Your task to perform on an android device: turn on translation in the chrome app Image 0: 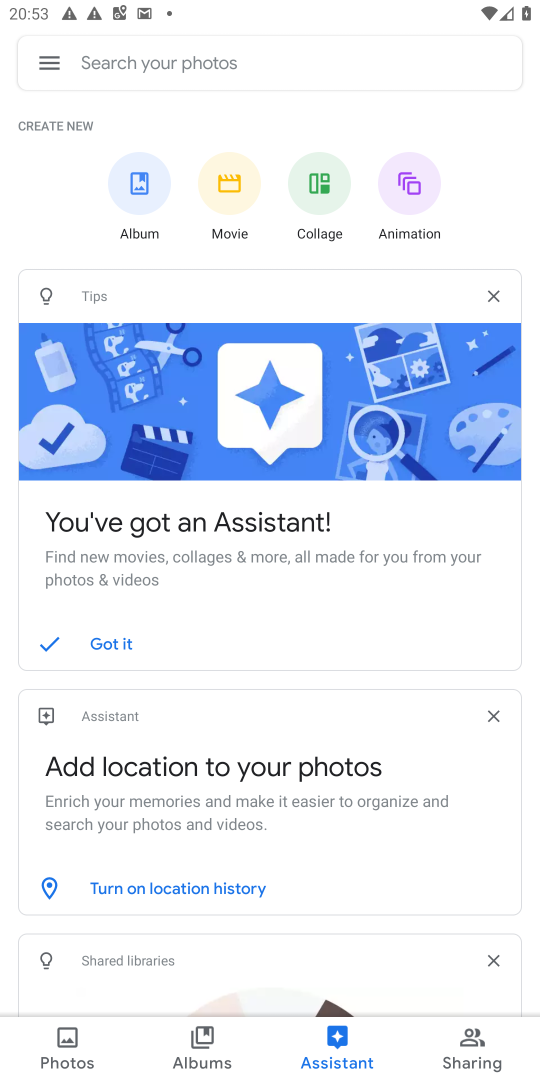
Step 0: click (190, 70)
Your task to perform on an android device: turn on translation in the chrome app Image 1: 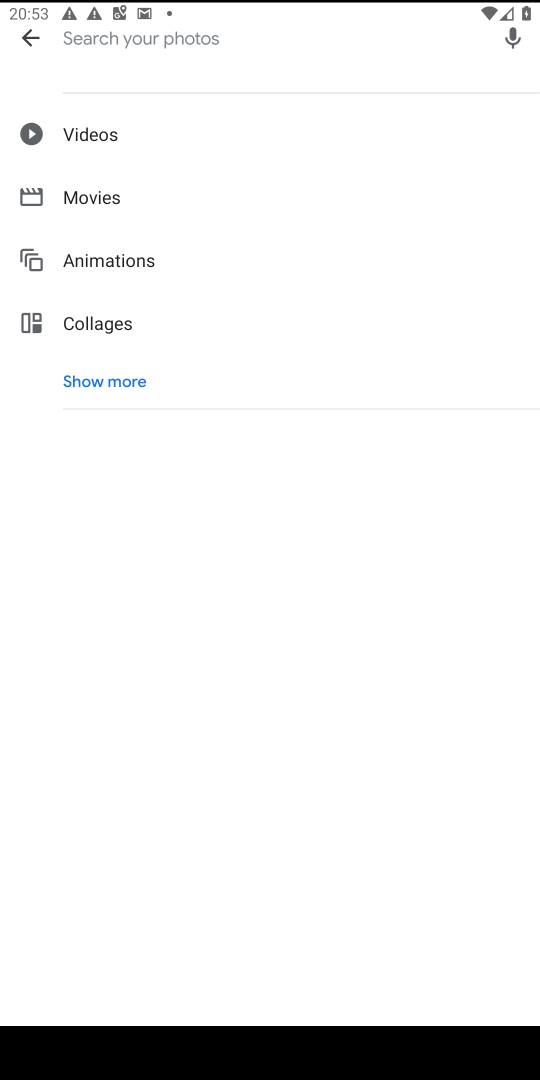
Step 1: click (34, 43)
Your task to perform on an android device: turn on translation in the chrome app Image 2: 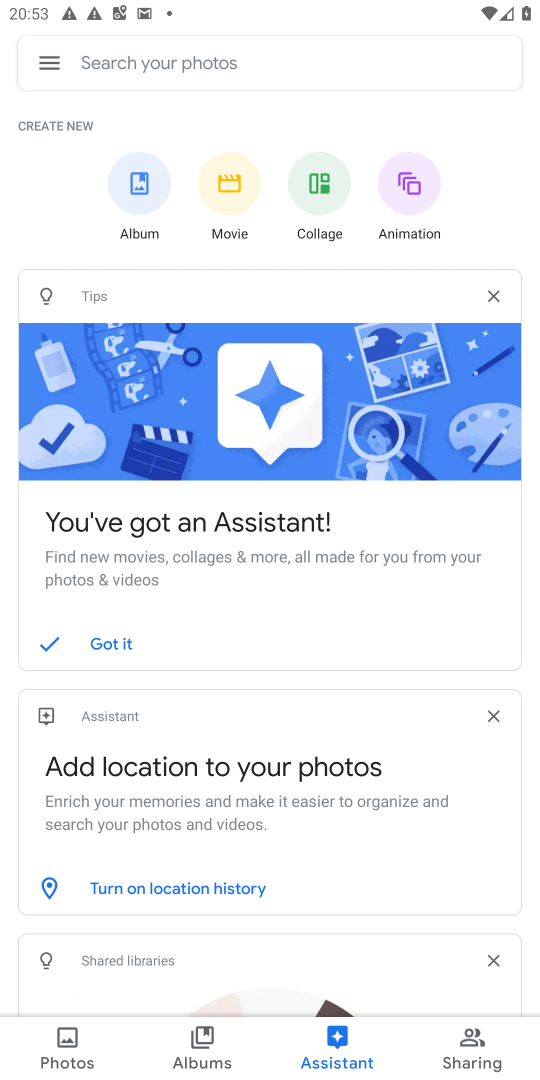
Step 2: click (67, 66)
Your task to perform on an android device: turn on translation in the chrome app Image 3: 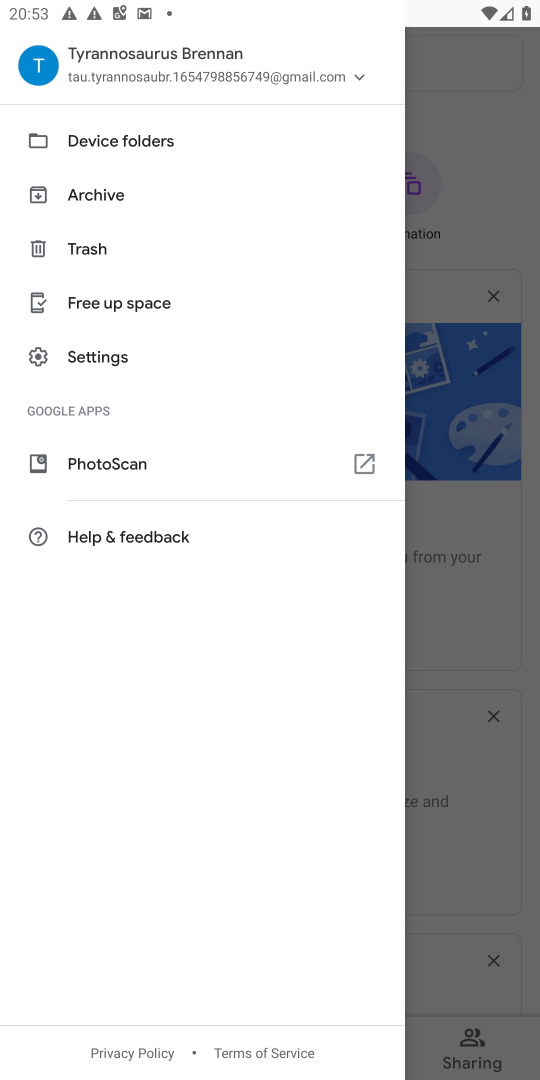
Step 3: click (457, 602)
Your task to perform on an android device: turn on translation in the chrome app Image 4: 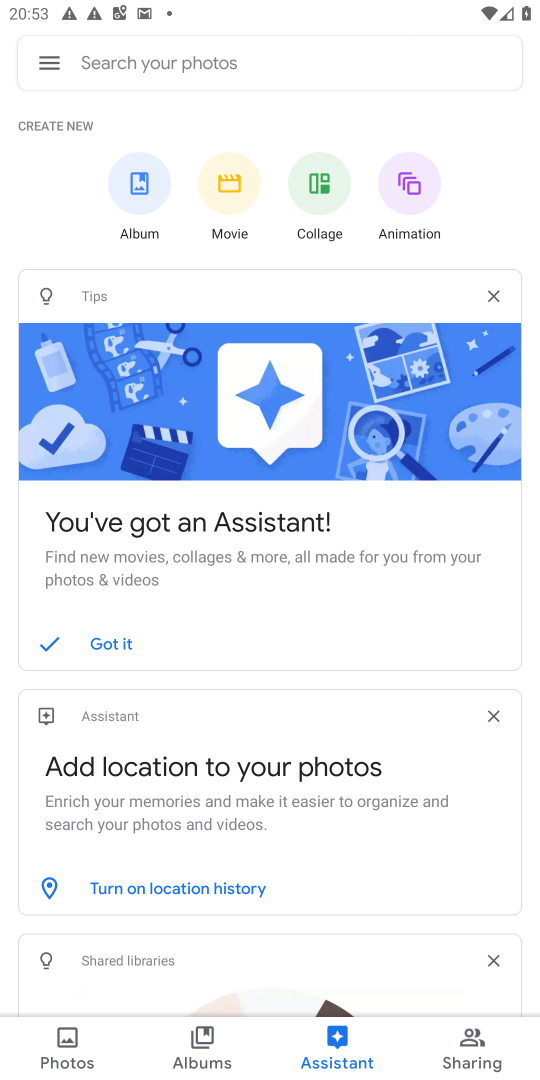
Step 4: click (34, 67)
Your task to perform on an android device: turn on translation in the chrome app Image 5: 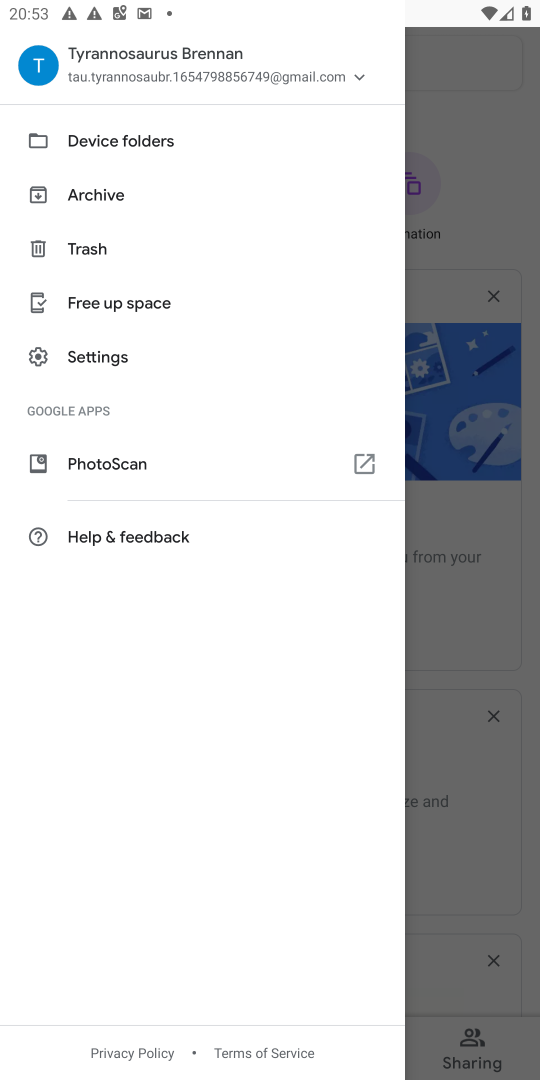
Step 5: click (129, 360)
Your task to perform on an android device: turn on translation in the chrome app Image 6: 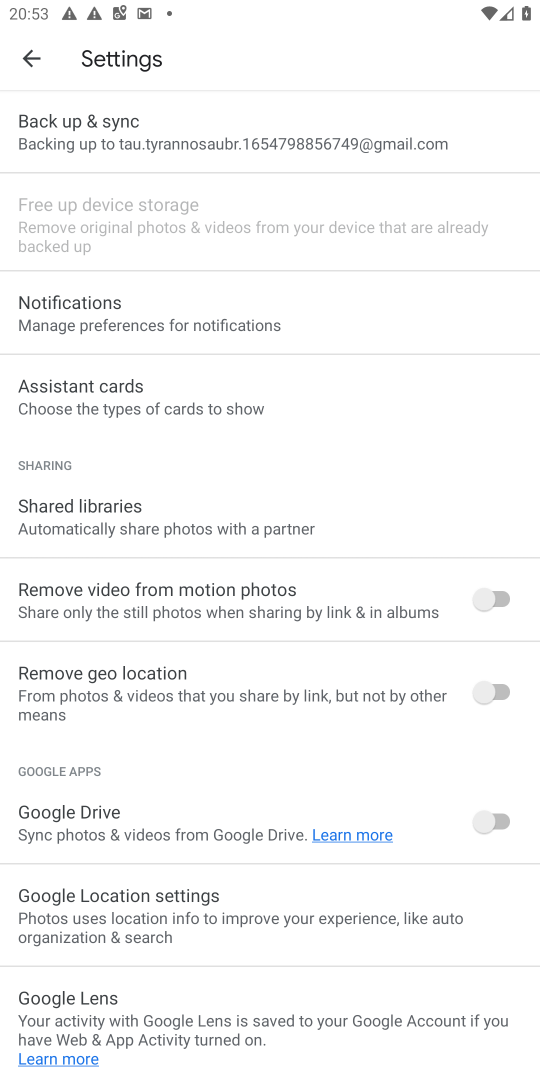
Step 6: press home button
Your task to perform on an android device: turn on translation in the chrome app Image 7: 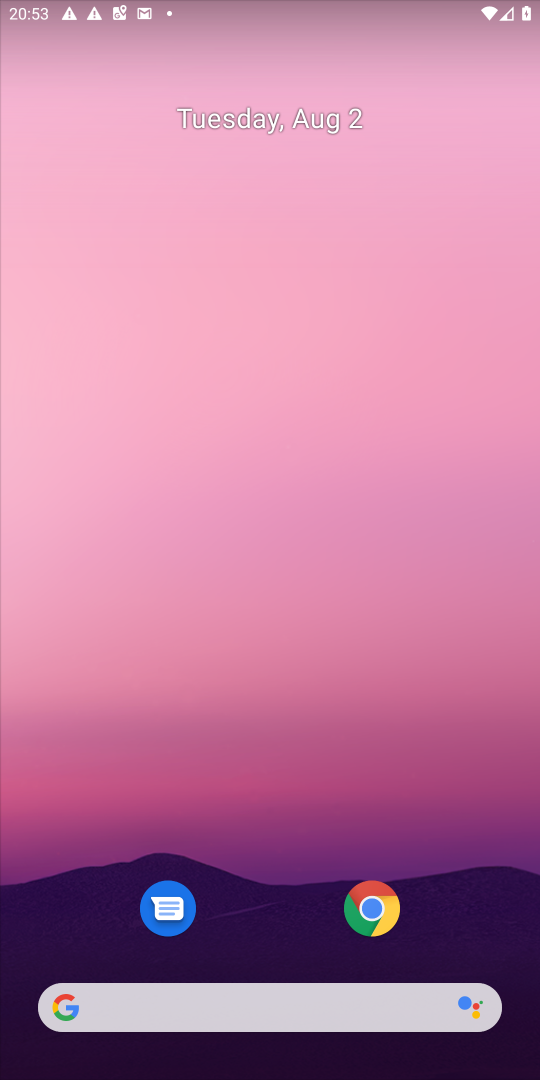
Step 7: click (371, 890)
Your task to perform on an android device: turn on translation in the chrome app Image 8: 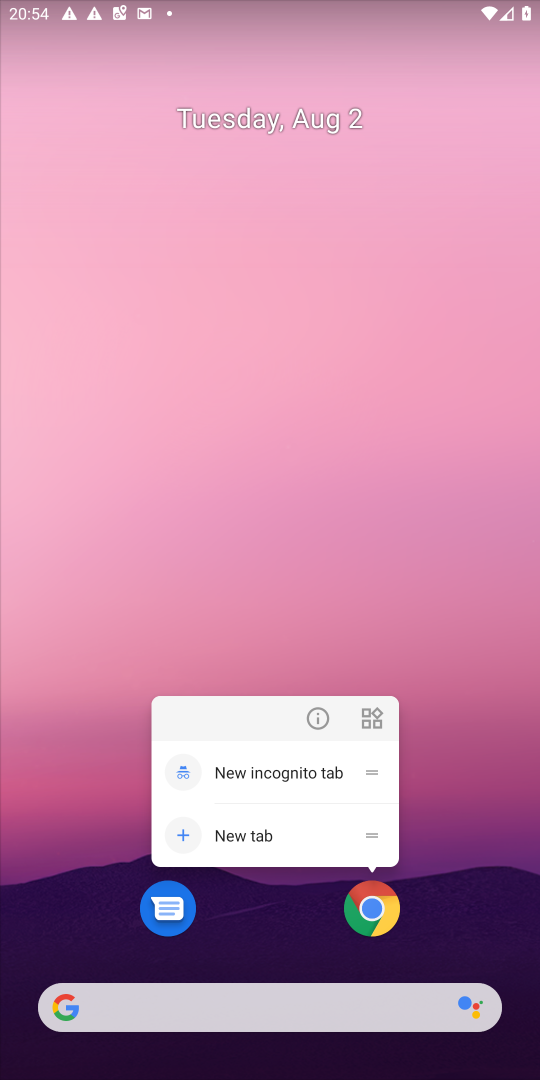
Step 8: click (353, 922)
Your task to perform on an android device: turn on translation in the chrome app Image 9: 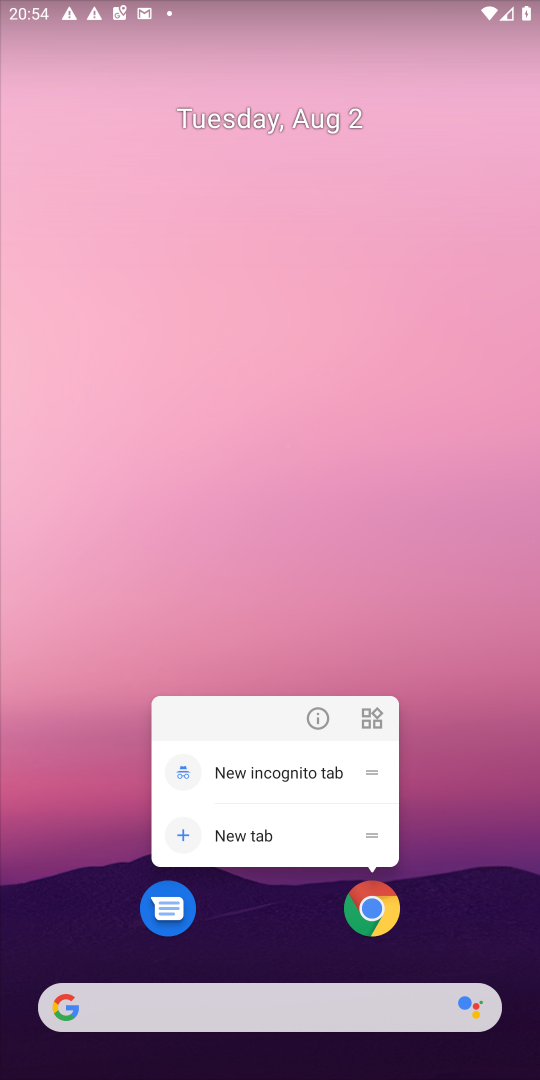
Step 9: click (353, 922)
Your task to perform on an android device: turn on translation in the chrome app Image 10: 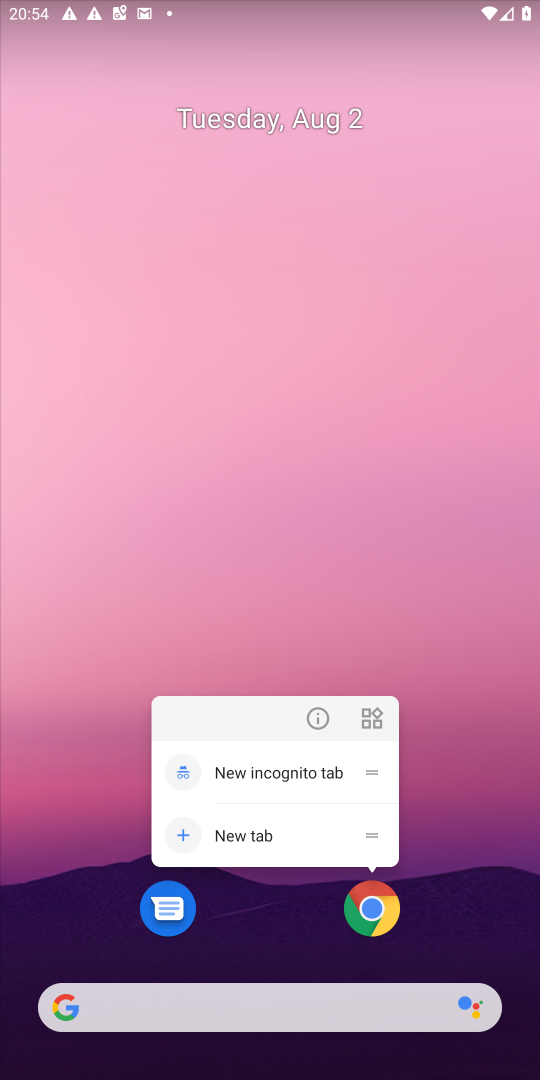
Step 10: click (413, 921)
Your task to perform on an android device: turn on translation in the chrome app Image 11: 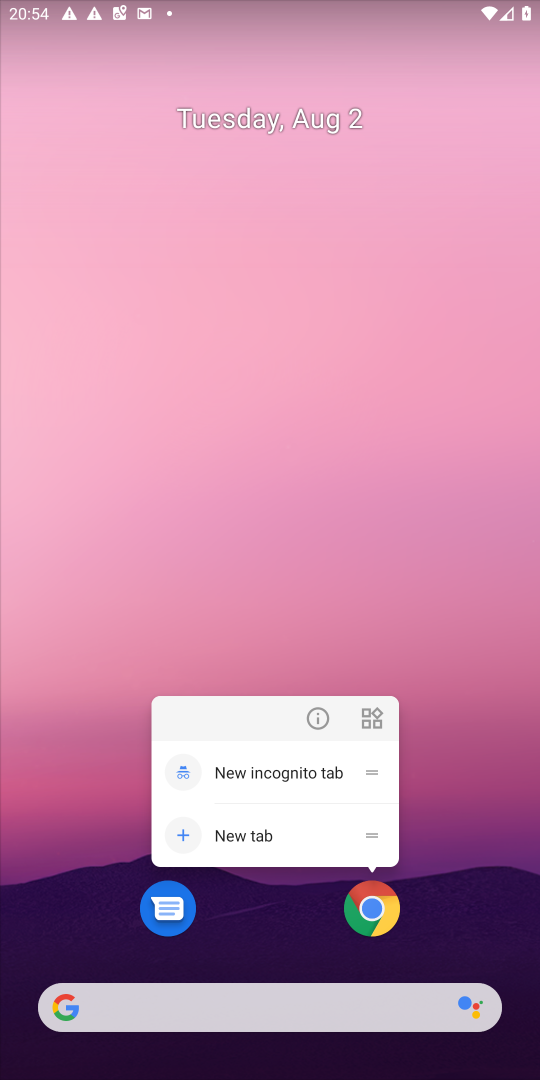
Step 11: click (391, 919)
Your task to perform on an android device: turn on translation in the chrome app Image 12: 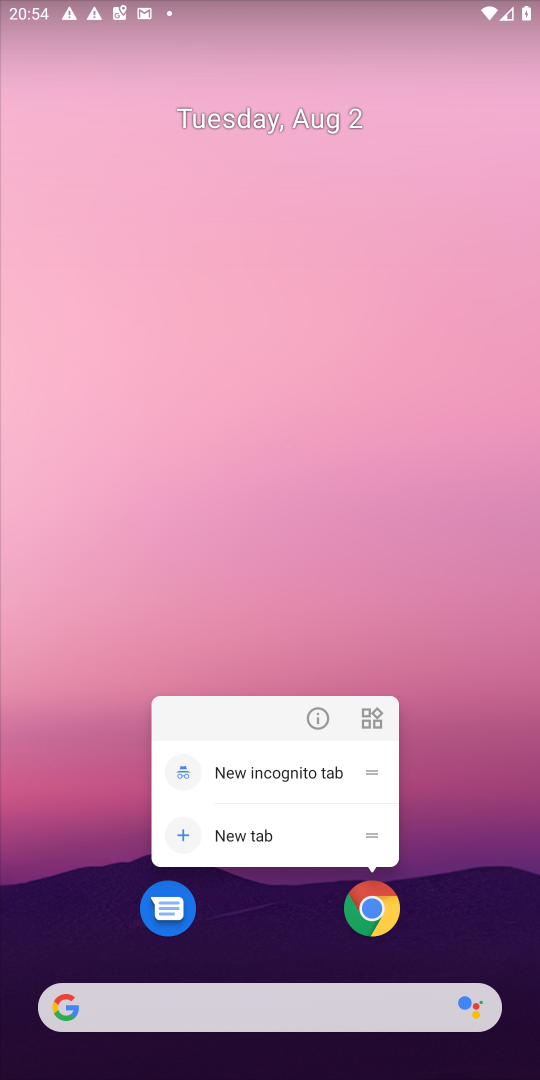
Step 12: click (391, 919)
Your task to perform on an android device: turn on translation in the chrome app Image 13: 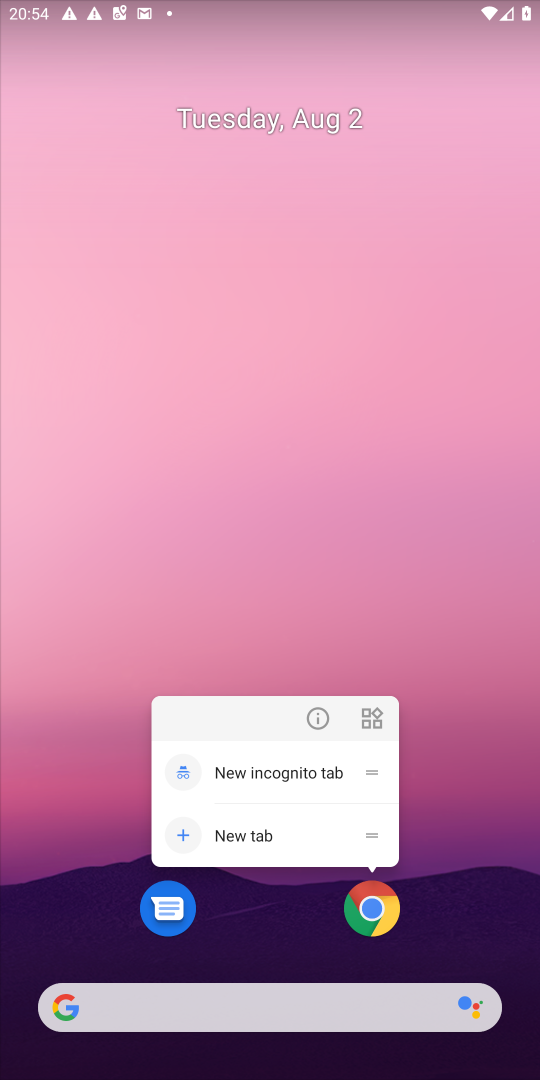
Step 13: click (375, 918)
Your task to perform on an android device: turn on translation in the chrome app Image 14: 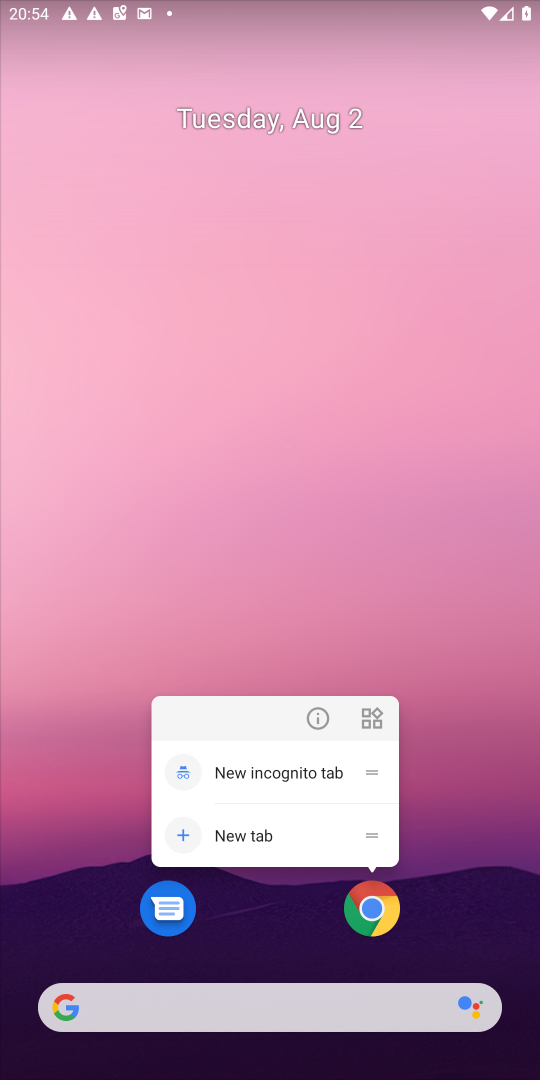
Step 14: click (364, 898)
Your task to perform on an android device: turn on translation in the chrome app Image 15: 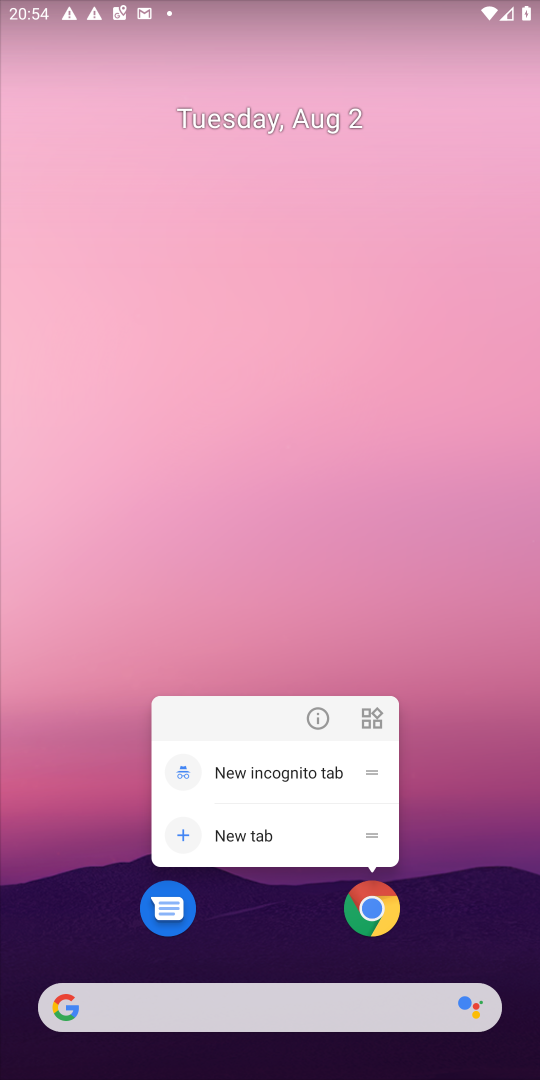
Step 15: click (383, 922)
Your task to perform on an android device: turn on translation in the chrome app Image 16: 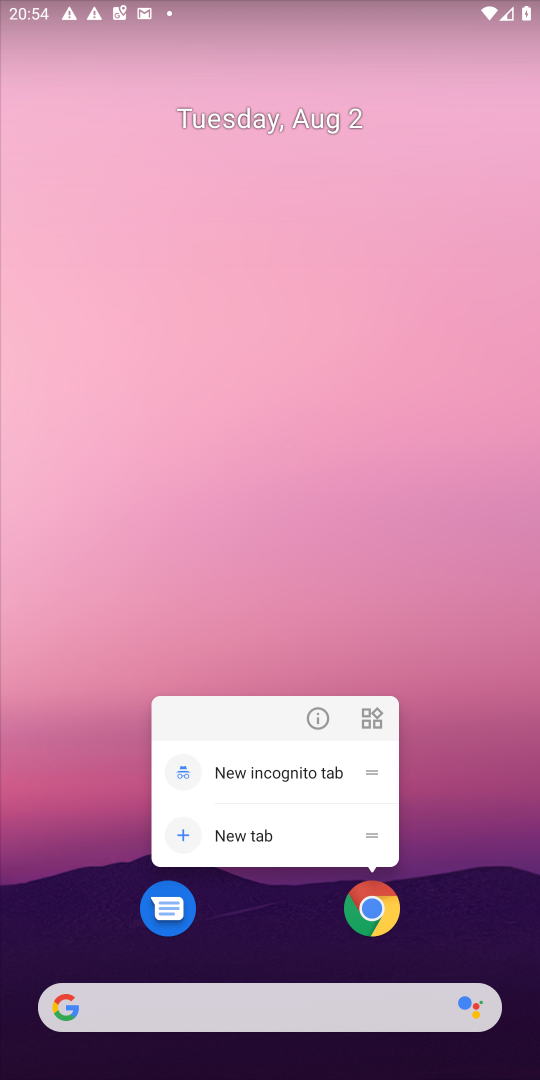
Step 16: click (374, 908)
Your task to perform on an android device: turn on translation in the chrome app Image 17: 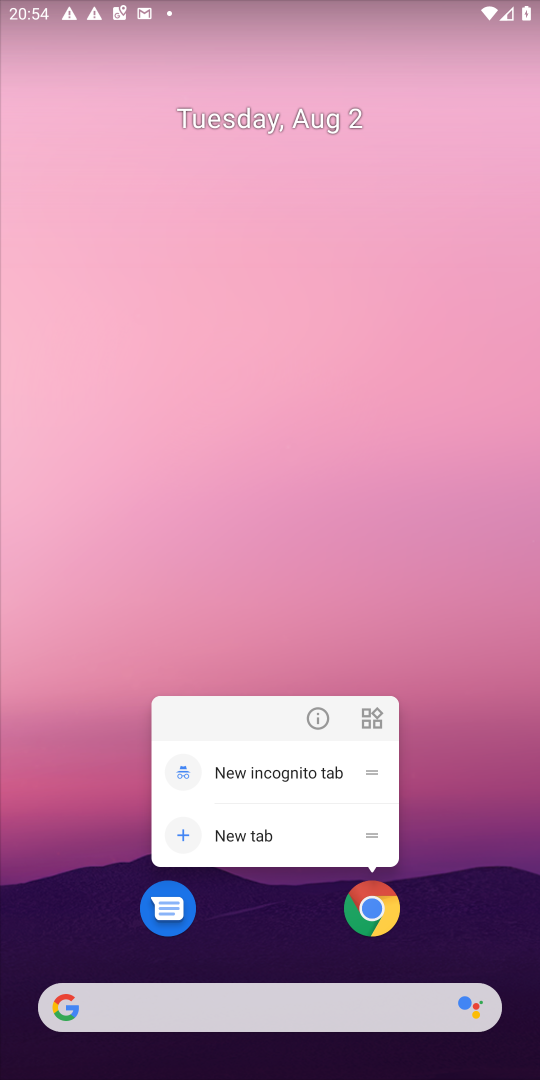
Step 17: click (374, 908)
Your task to perform on an android device: turn on translation in the chrome app Image 18: 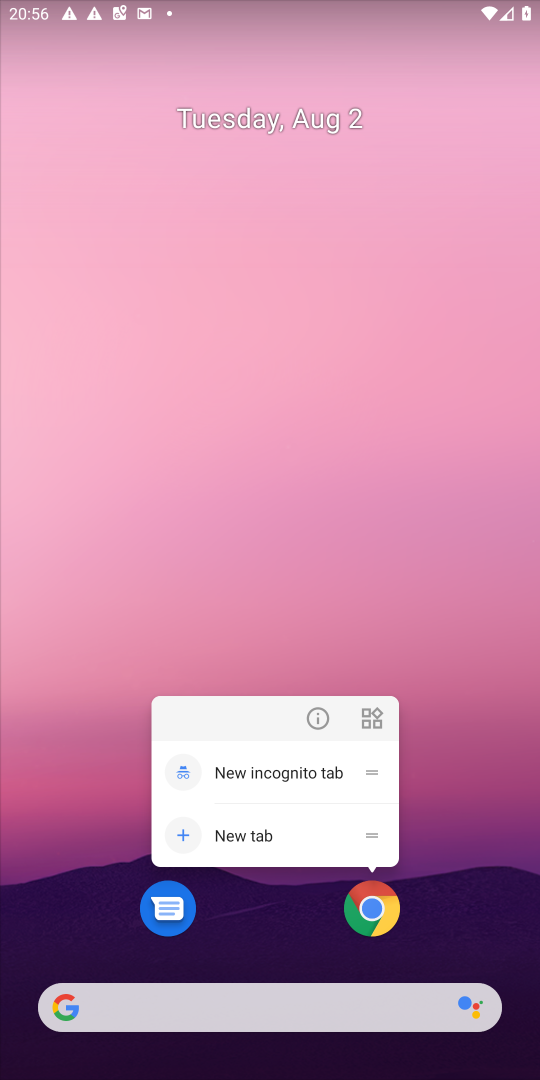
Step 18: click (352, 911)
Your task to perform on an android device: turn on translation in the chrome app Image 19: 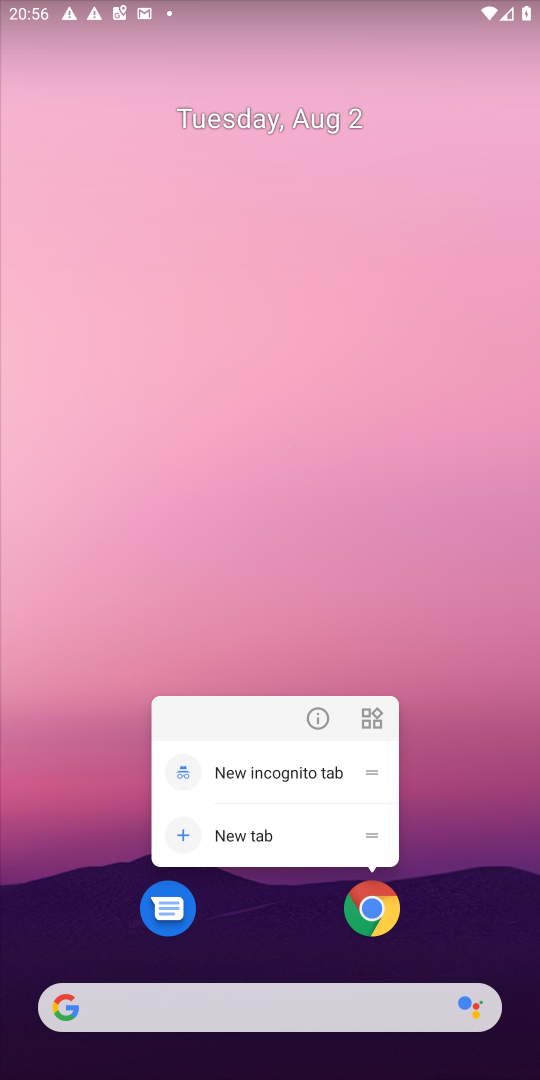
Step 19: click (352, 911)
Your task to perform on an android device: turn on translation in the chrome app Image 20: 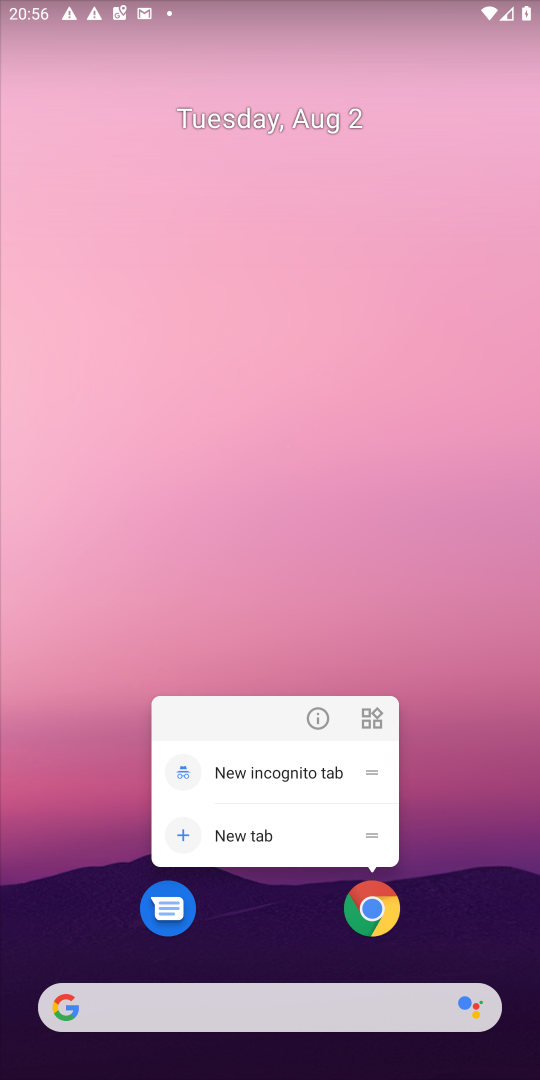
Step 20: click (352, 911)
Your task to perform on an android device: turn on translation in the chrome app Image 21: 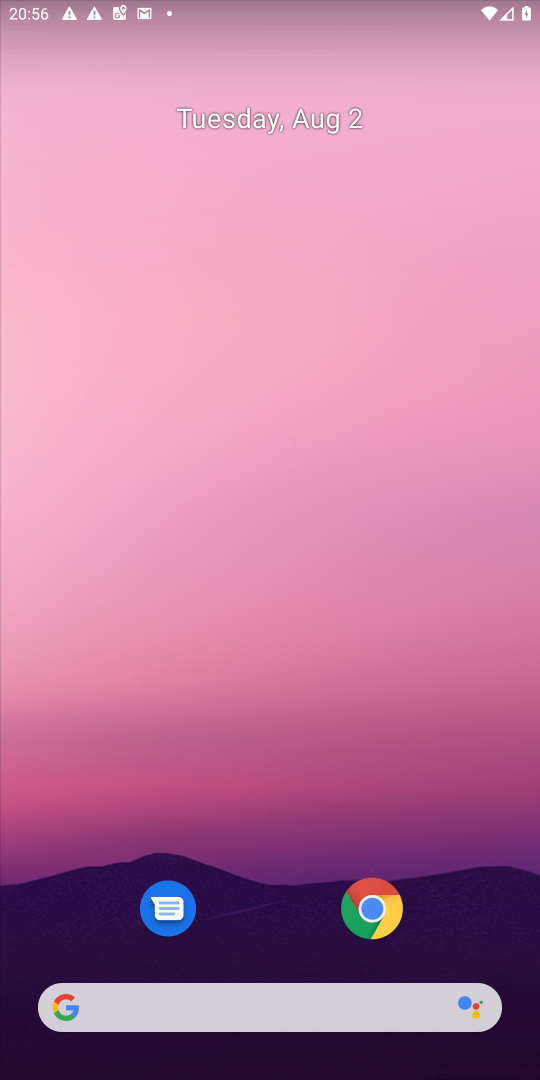
Step 21: click (352, 911)
Your task to perform on an android device: turn on translation in the chrome app Image 22: 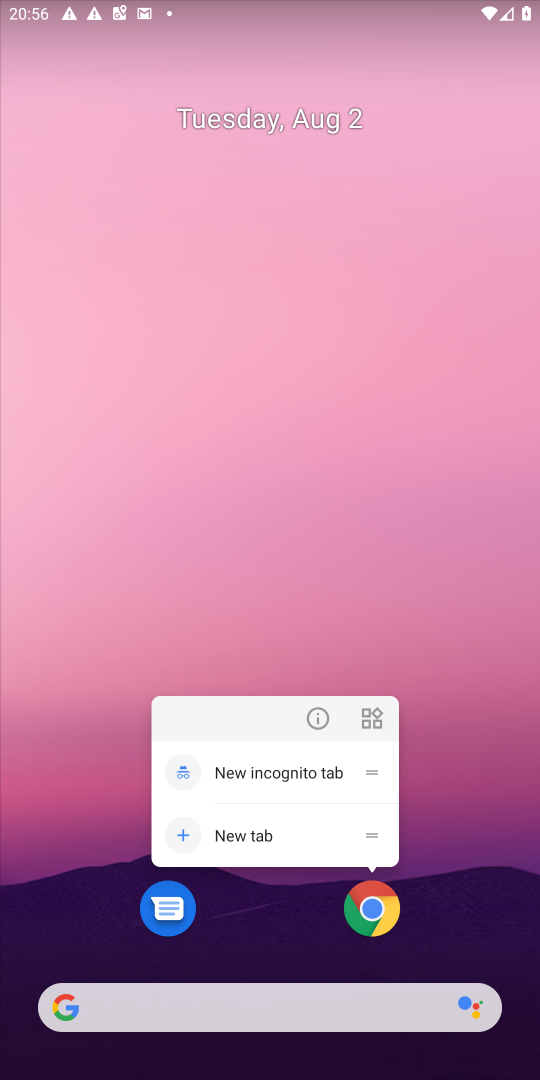
Step 22: click (352, 911)
Your task to perform on an android device: turn on translation in the chrome app Image 23: 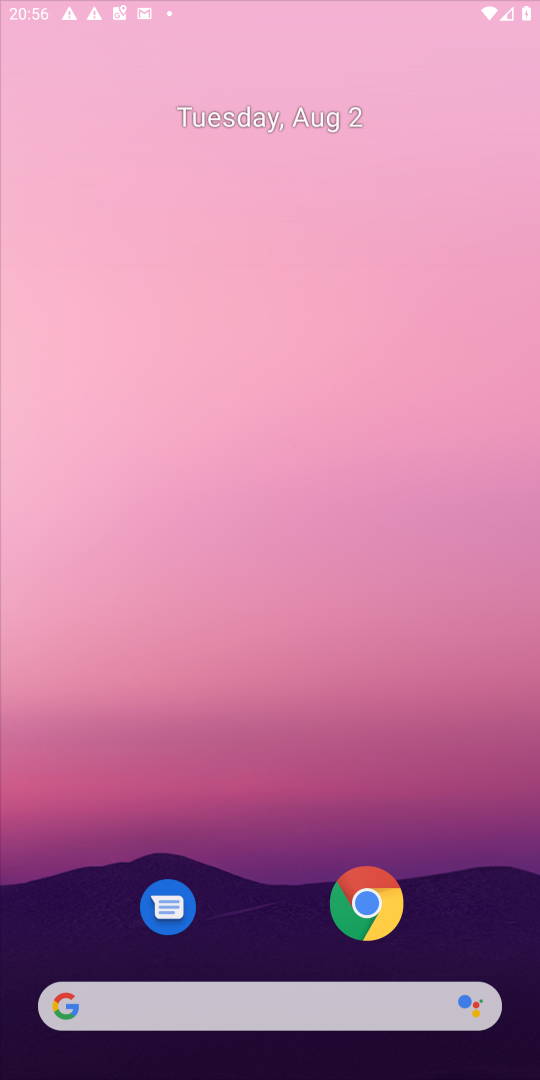
Step 23: click (352, 911)
Your task to perform on an android device: turn on translation in the chrome app Image 24: 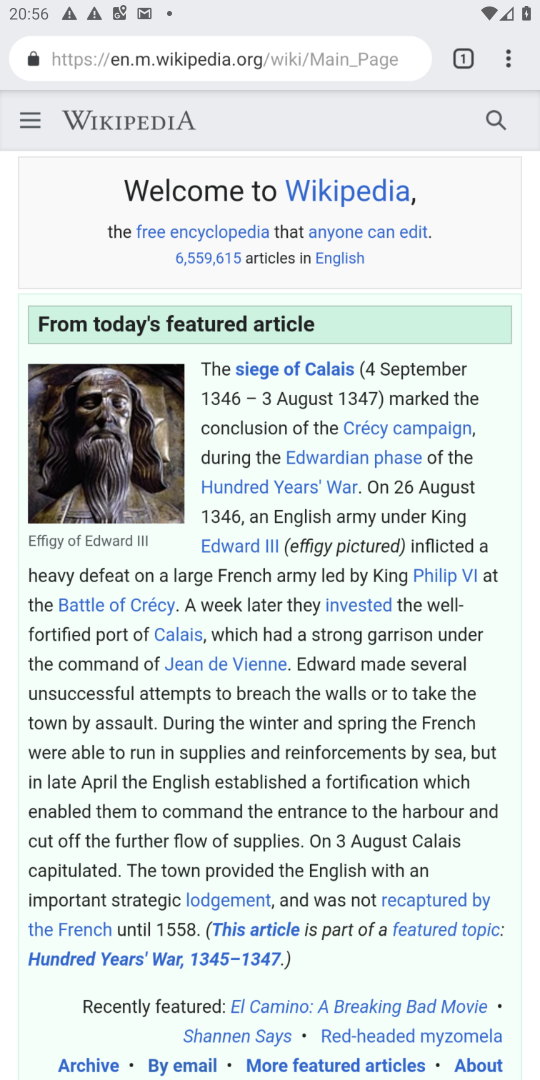
Step 24: click (352, 911)
Your task to perform on an android device: turn on translation in the chrome app Image 25: 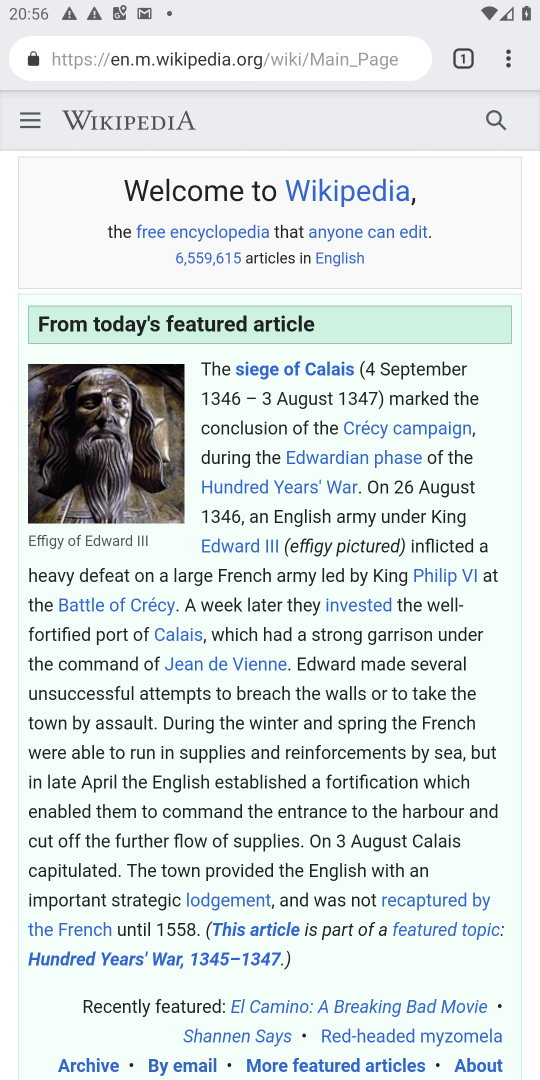
Step 25: click (505, 52)
Your task to perform on an android device: turn on translation in the chrome app Image 26: 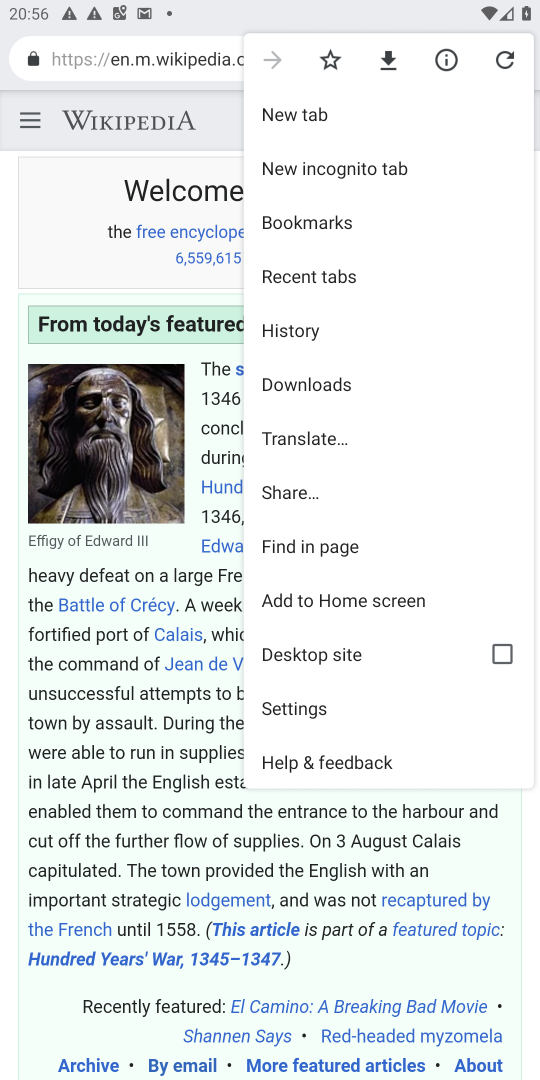
Step 26: click (308, 716)
Your task to perform on an android device: turn on translation in the chrome app Image 27: 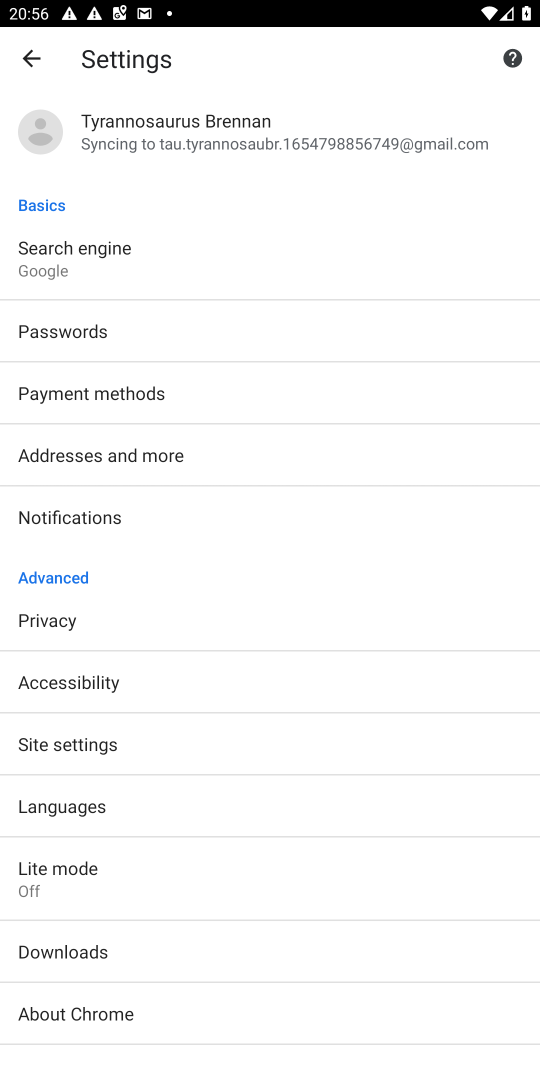
Step 27: click (120, 809)
Your task to perform on an android device: turn on translation in the chrome app Image 28: 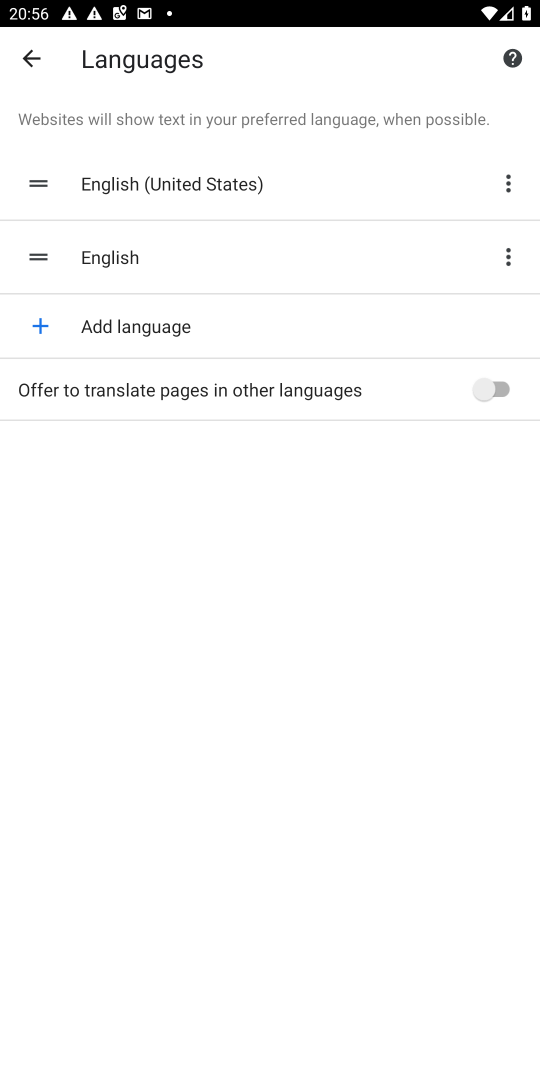
Step 28: click (486, 389)
Your task to perform on an android device: turn on translation in the chrome app Image 29: 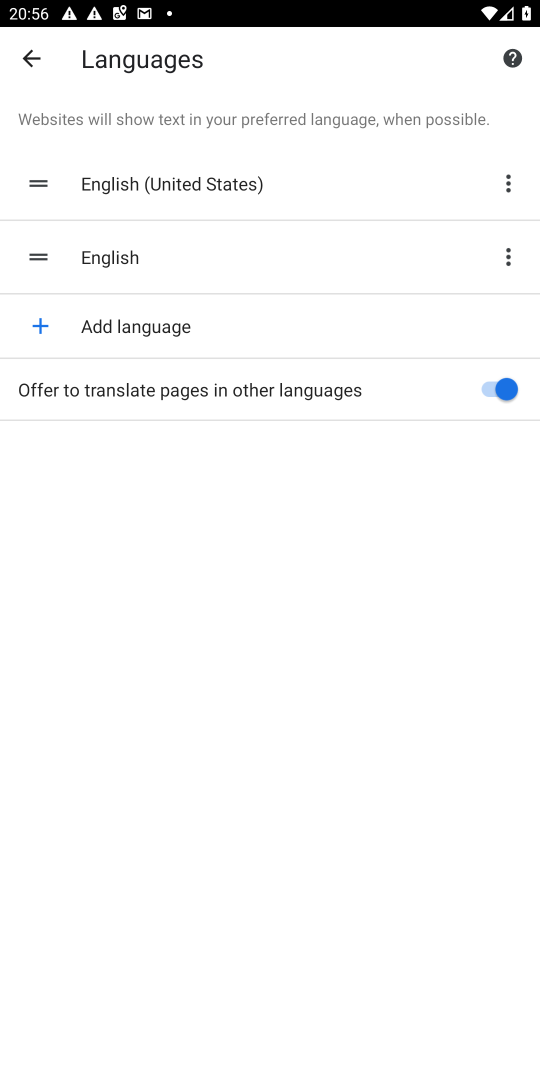
Step 29: task complete